Your task to perform on an android device: empty trash in the gmail app Image 0: 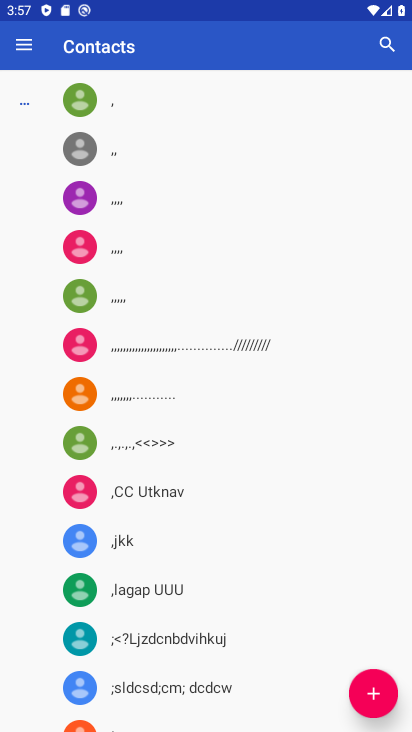
Step 0: press home button
Your task to perform on an android device: empty trash in the gmail app Image 1: 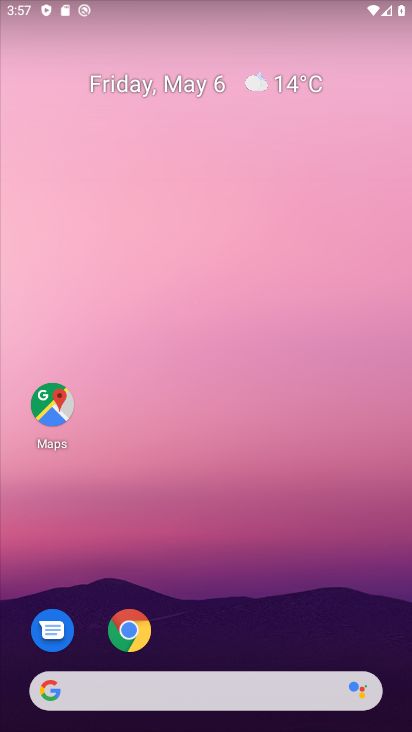
Step 1: drag from (350, 518) to (309, 350)
Your task to perform on an android device: empty trash in the gmail app Image 2: 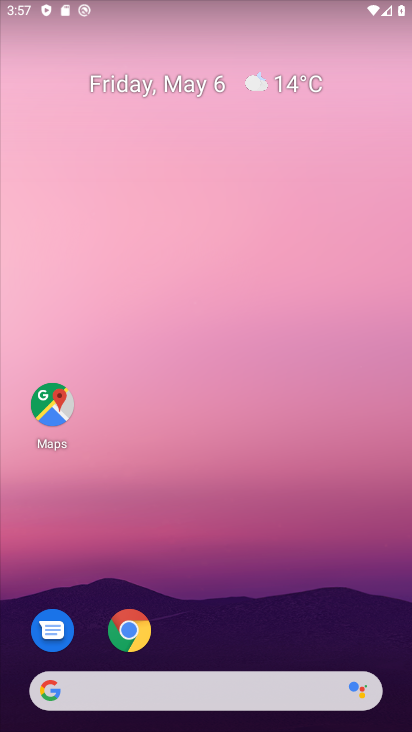
Step 2: drag from (340, 619) to (367, 177)
Your task to perform on an android device: empty trash in the gmail app Image 3: 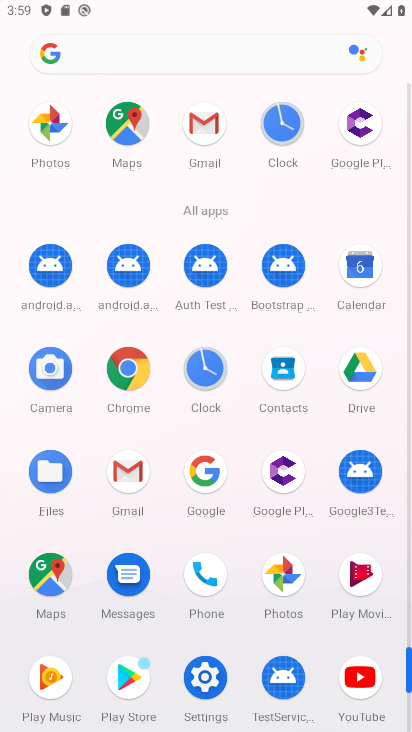
Step 3: click (109, 473)
Your task to perform on an android device: empty trash in the gmail app Image 4: 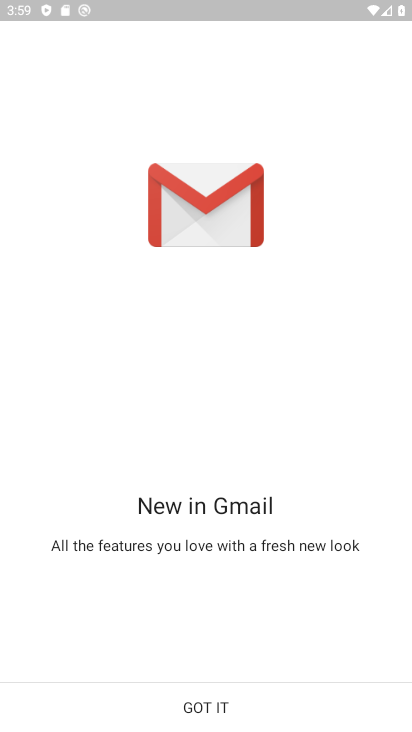
Step 4: click (272, 690)
Your task to perform on an android device: empty trash in the gmail app Image 5: 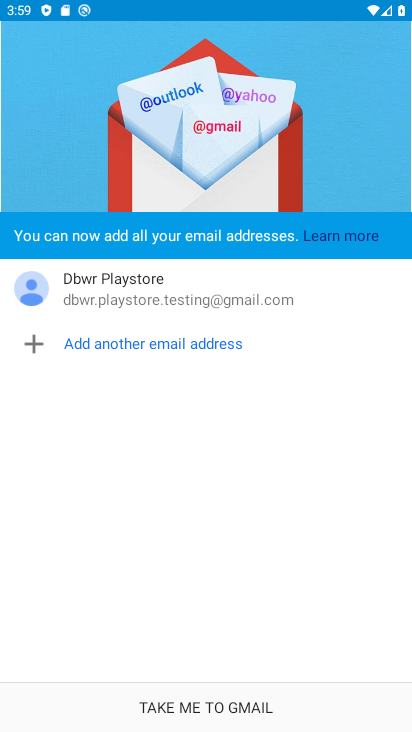
Step 5: click (371, 698)
Your task to perform on an android device: empty trash in the gmail app Image 6: 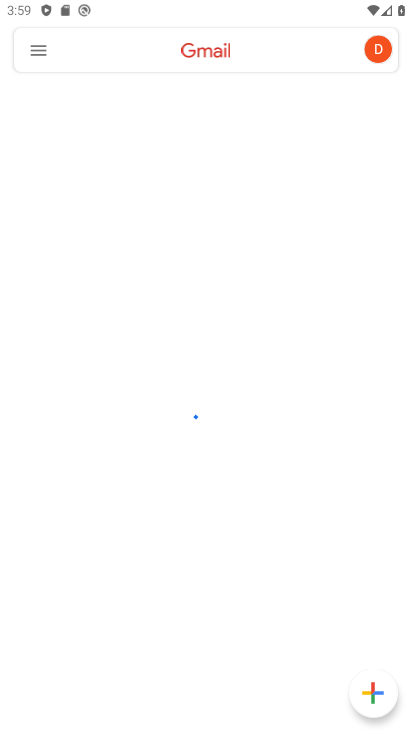
Step 6: click (45, 43)
Your task to perform on an android device: empty trash in the gmail app Image 7: 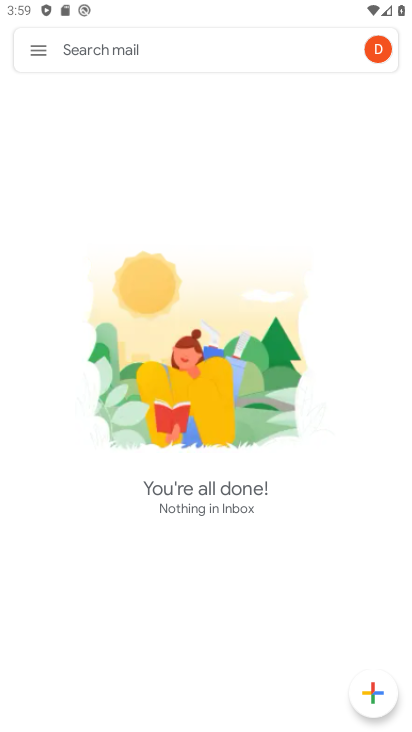
Step 7: click (41, 53)
Your task to perform on an android device: empty trash in the gmail app Image 8: 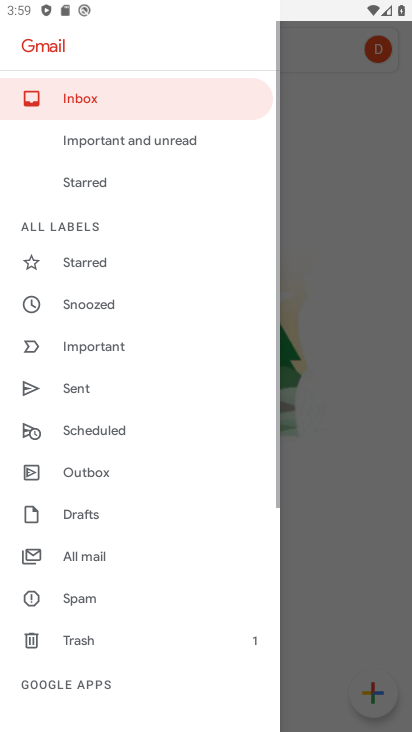
Step 8: click (51, 185)
Your task to perform on an android device: empty trash in the gmail app Image 9: 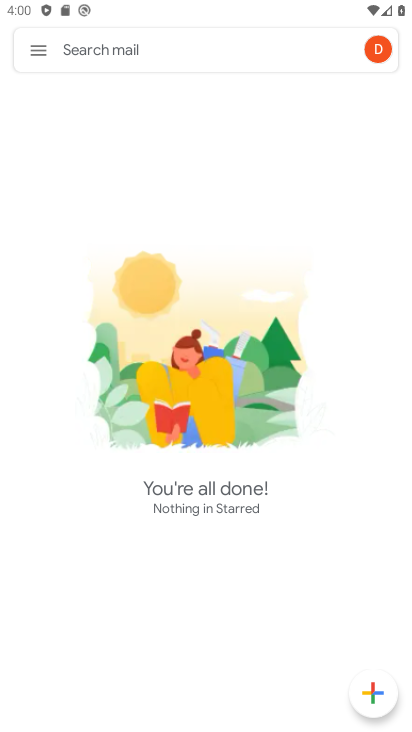
Step 9: click (29, 39)
Your task to perform on an android device: empty trash in the gmail app Image 10: 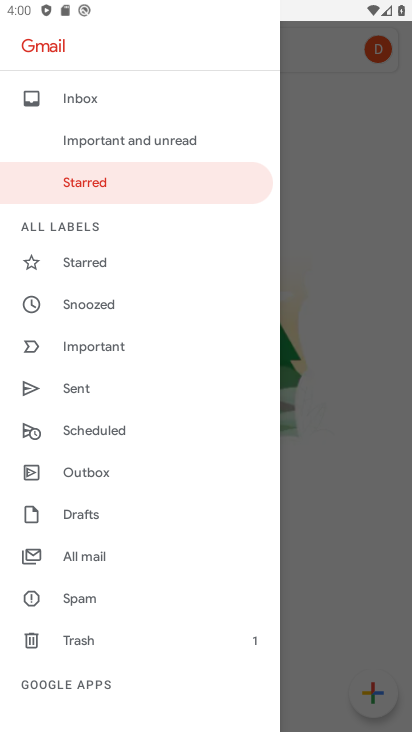
Step 10: drag from (184, 641) to (262, 215)
Your task to perform on an android device: empty trash in the gmail app Image 11: 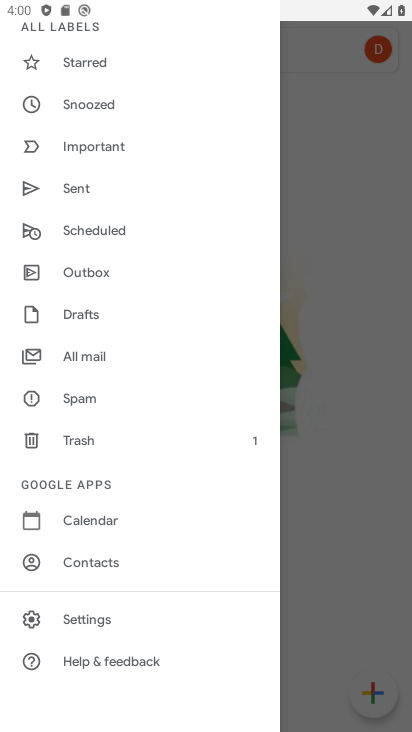
Step 11: drag from (78, 211) to (364, 335)
Your task to perform on an android device: empty trash in the gmail app Image 12: 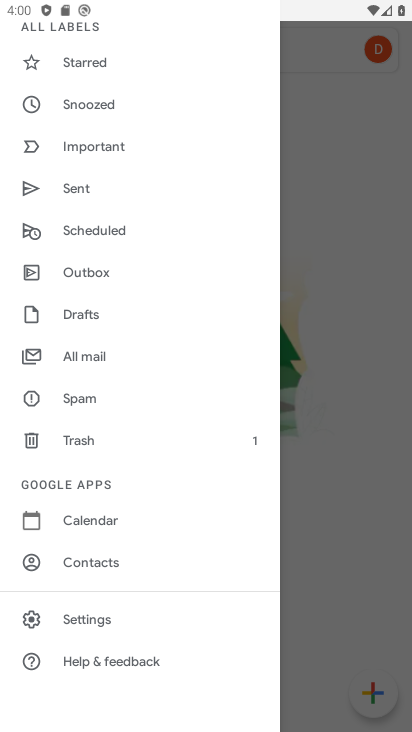
Step 12: click (76, 442)
Your task to perform on an android device: empty trash in the gmail app Image 13: 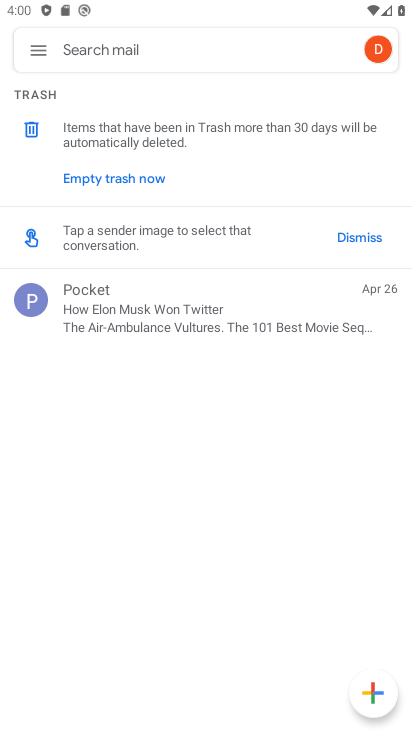
Step 13: click (260, 320)
Your task to perform on an android device: empty trash in the gmail app Image 14: 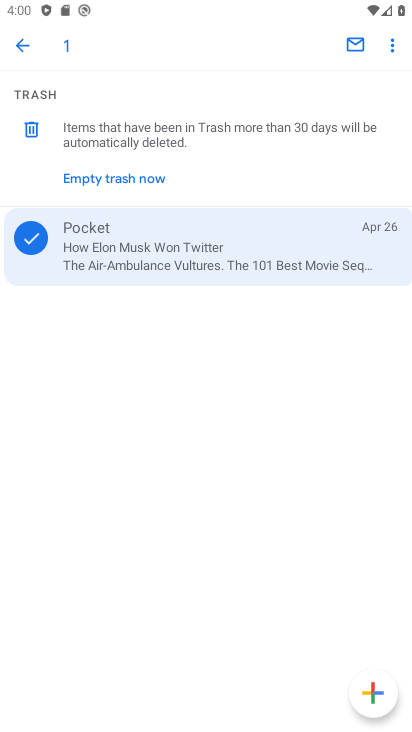
Step 14: click (78, 186)
Your task to perform on an android device: empty trash in the gmail app Image 15: 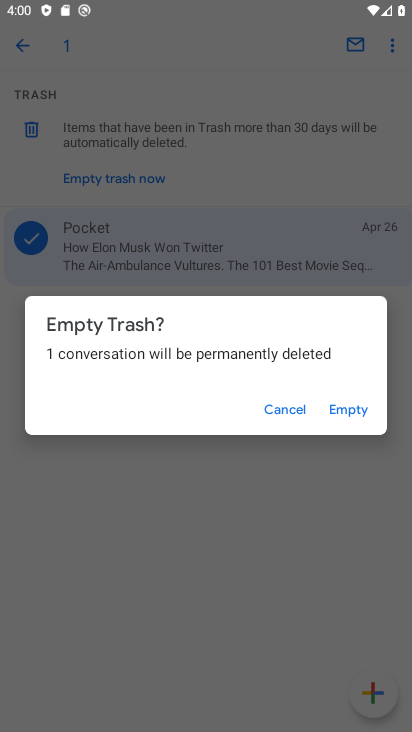
Step 15: click (352, 403)
Your task to perform on an android device: empty trash in the gmail app Image 16: 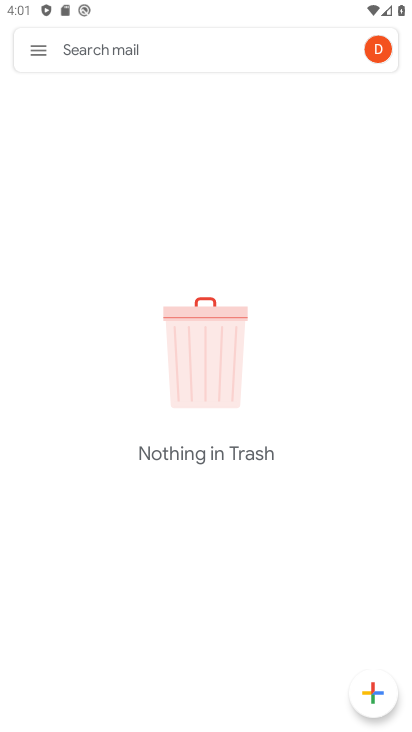
Step 16: task complete